Your task to perform on an android device: change notifications settings Image 0: 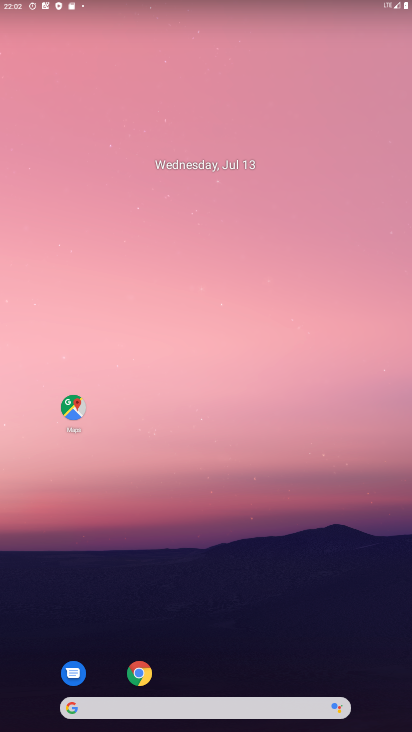
Step 0: drag from (190, 688) to (186, 244)
Your task to perform on an android device: change notifications settings Image 1: 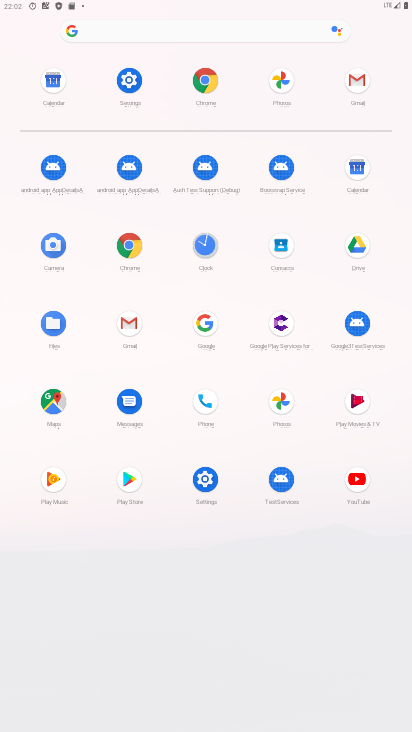
Step 1: click (202, 481)
Your task to perform on an android device: change notifications settings Image 2: 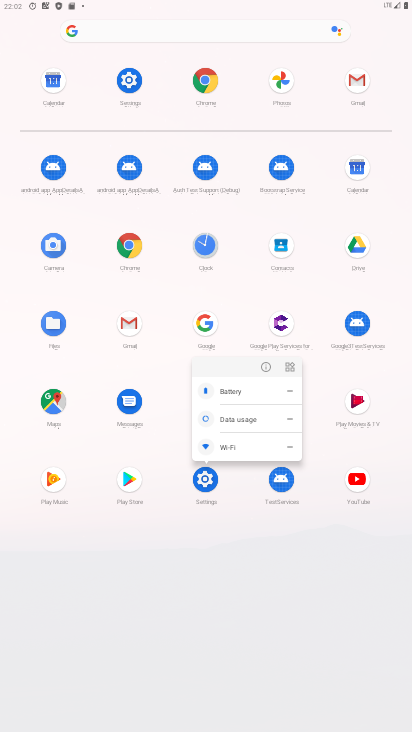
Step 2: click (257, 368)
Your task to perform on an android device: change notifications settings Image 3: 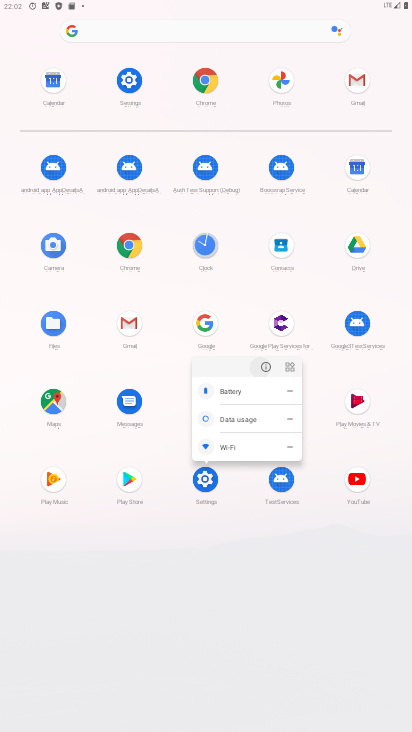
Step 3: click (257, 368)
Your task to perform on an android device: change notifications settings Image 4: 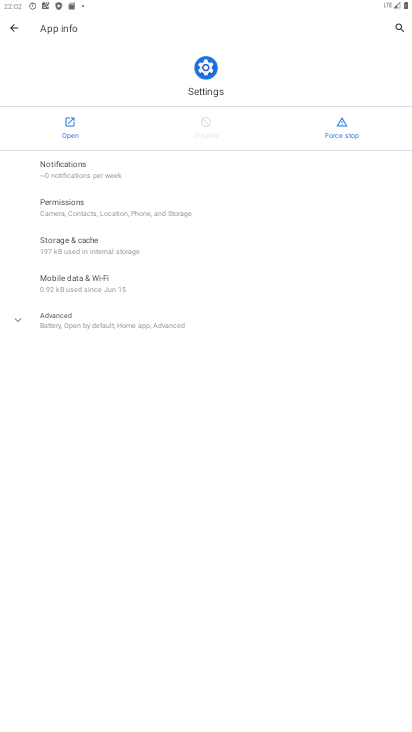
Step 4: click (71, 137)
Your task to perform on an android device: change notifications settings Image 5: 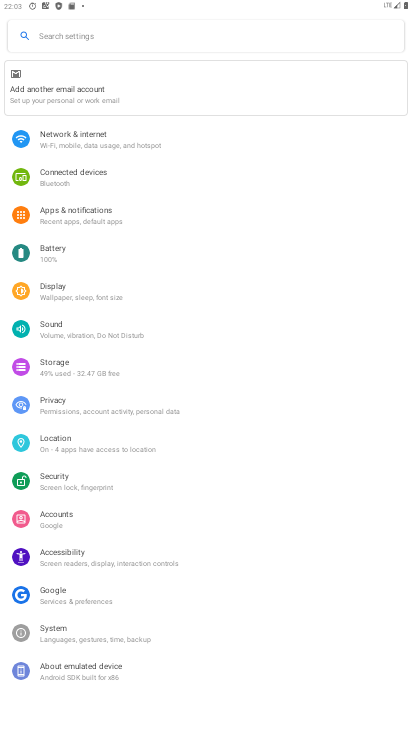
Step 5: click (88, 217)
Your task to perform on an android device: change notifications settings Image 6: 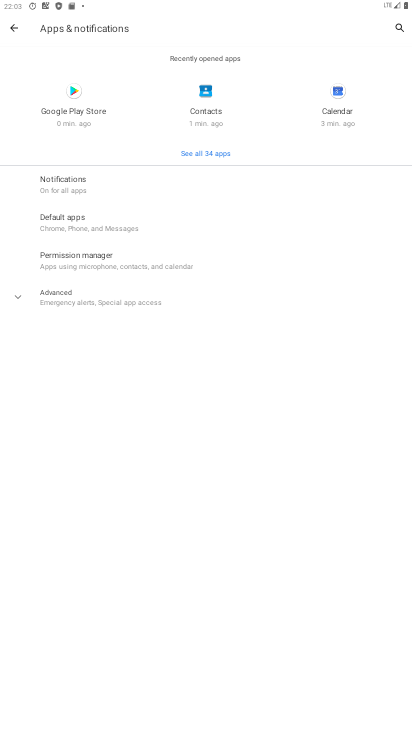
Step 6: click (106, 183)
Your task to perform on an android device: change notifications settings Image 7: 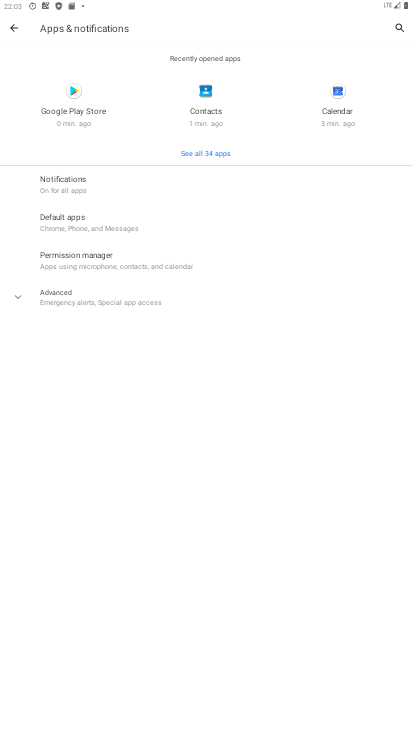
Step 7: click (106, 183)
Your task to perform on an android device: change notifications settings Image 8: 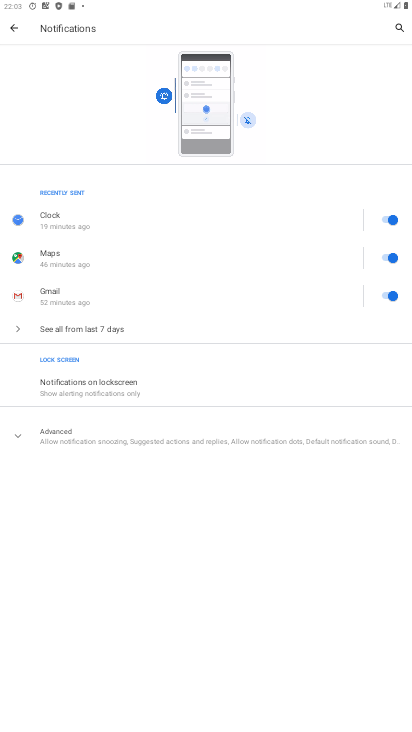
Step 8: click (92, 440)
Your task to perform on an android device: change notifications settings Image 9: 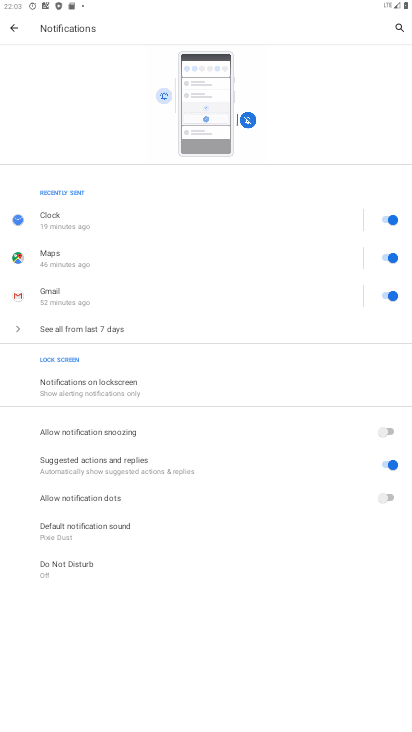
Step 9: drag from (219, 575) to (232, 500)
Your task to perform on an android device: change notifications settings Image 10: 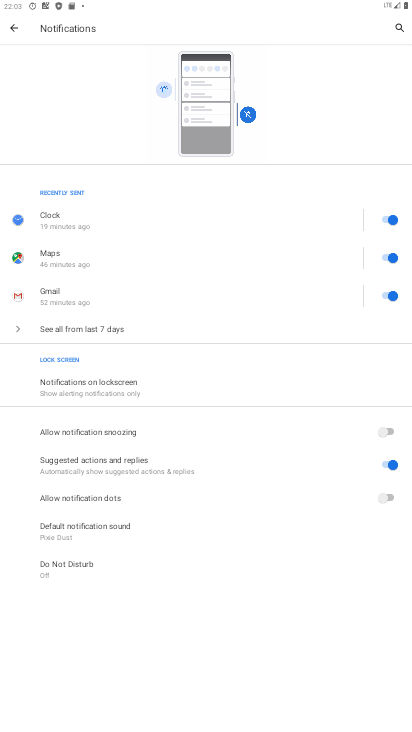
Step 10: drag from (181, 500) to (211, 348)
Your task to perform on an android device: change notifications settings Image 11: 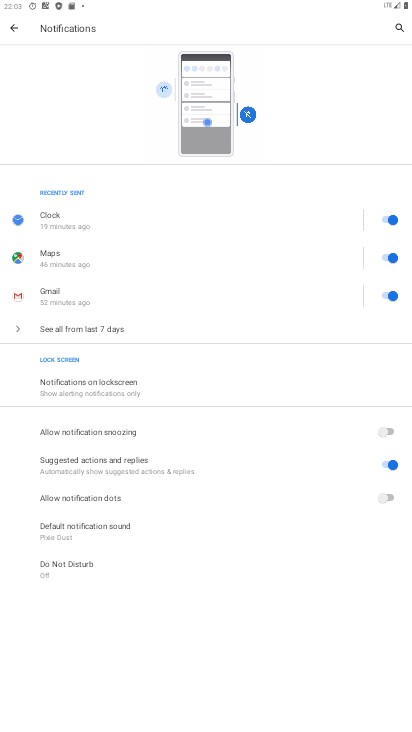
Step 11: drag from (208, 543) to (208, 411)
Your task to perform on an android device: change notifications settings Image 12: 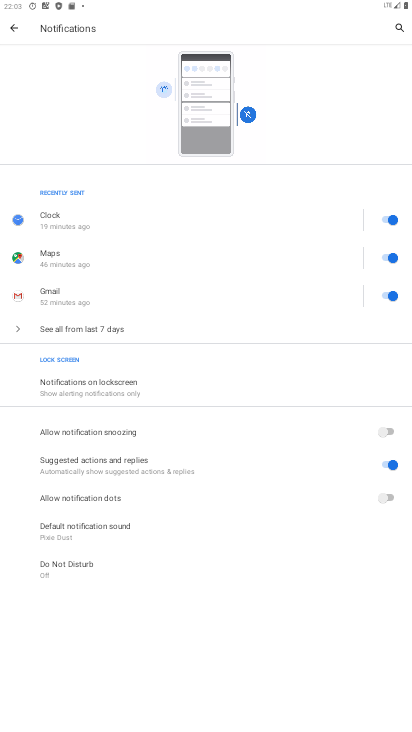
Step 12: drag from (218, 615) to (241, 482)
Your task to perform on an android device: change notifications settings Image 13: 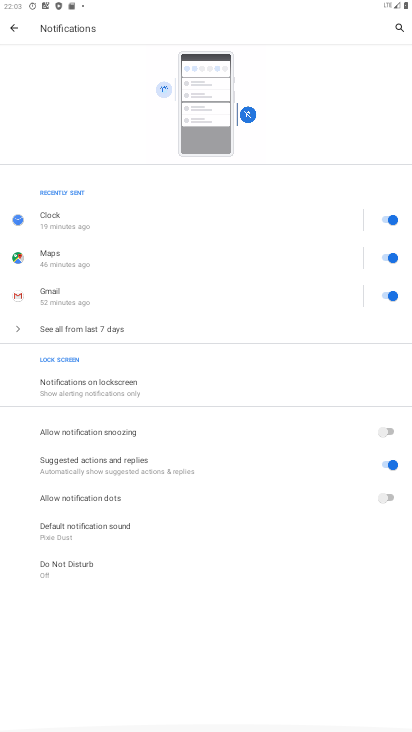
Step 13: drag from (242, 323) to (264, 583)
Your task to perform on an android device: change notifications settings Image 14: 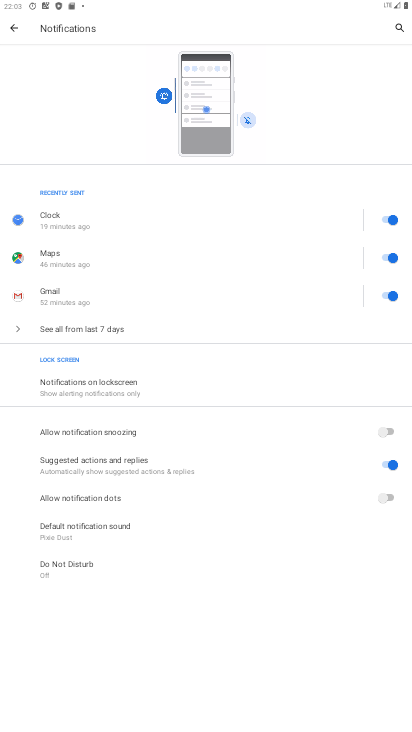
Step 14: click (382, 435)
Your task to perform on an android device: change notifications settings Image 15: 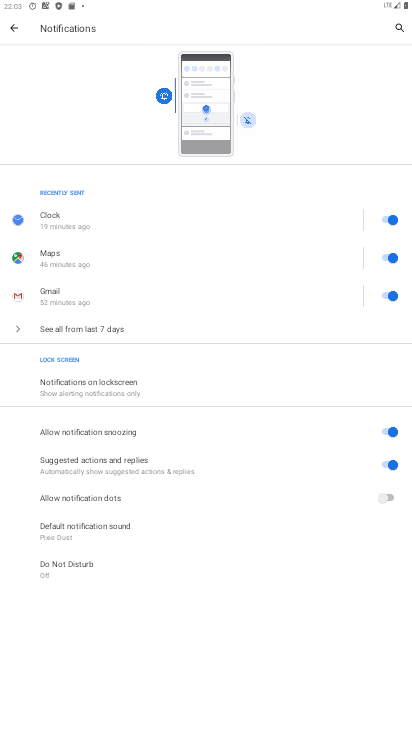
Step 15: task complete